Your task to perform on an android device: Go to eBay Image 0: 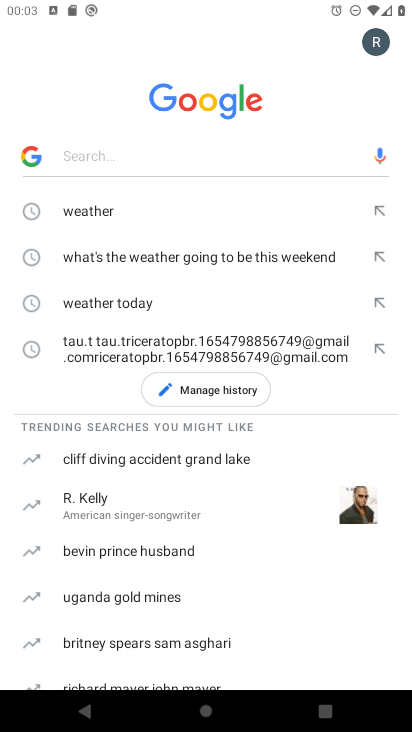
Step 0: press home button
Your task to perform on an android device: Go to eBay Image 1: 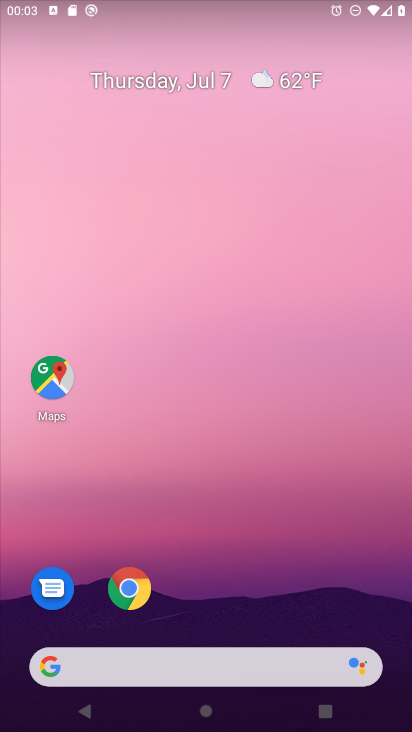
Step 1: click (129, 589)
Your task to perform on an android device: Go to eBay Image 2: 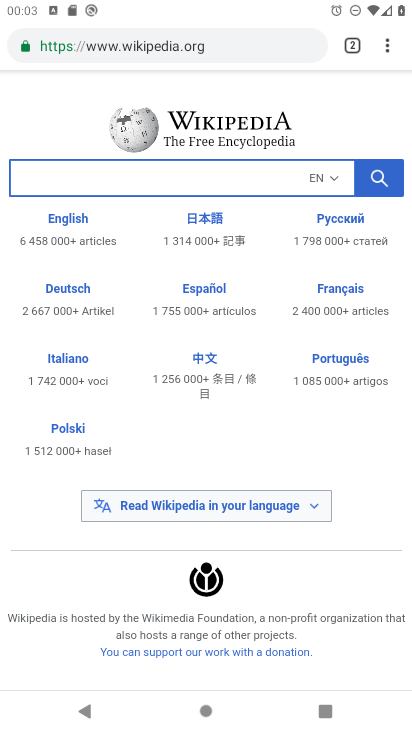
Step 2: click (235, 41)
Your task to perform on an android device: Go to eBay Image 3: 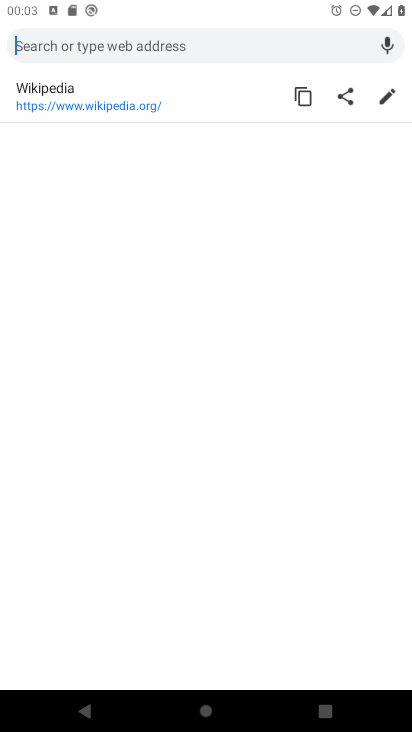
Step 3: type "eBay"
Your task to perform on an android device: Go to eBay Image 4: 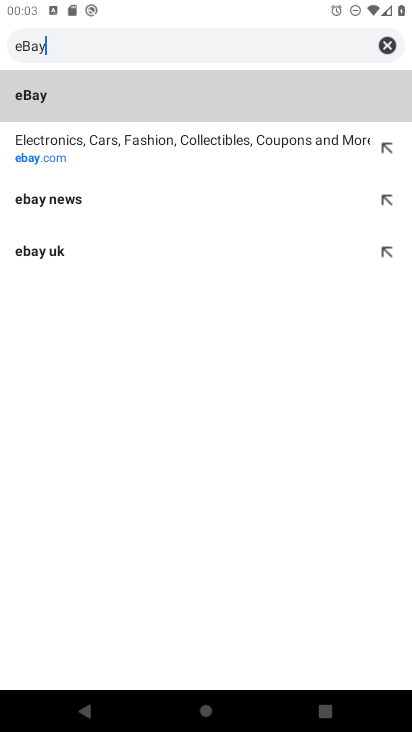
Step 4: click (47, 136)
Your task to perform on an android device: Go to eBay Image 5: 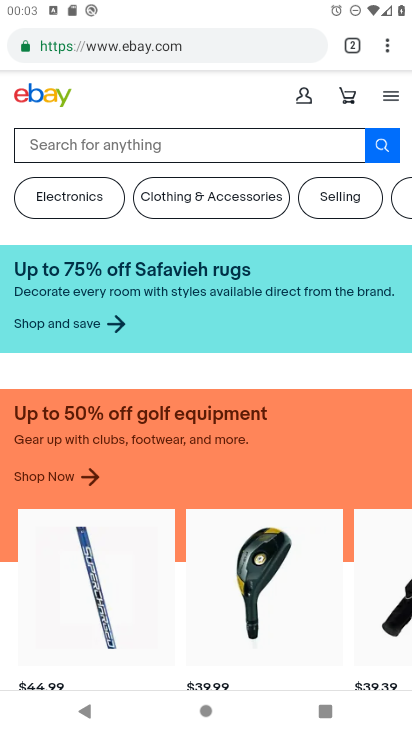
Step 5: task complete